Your task to perform on an android device: change your default location settings in chrome Image 0: 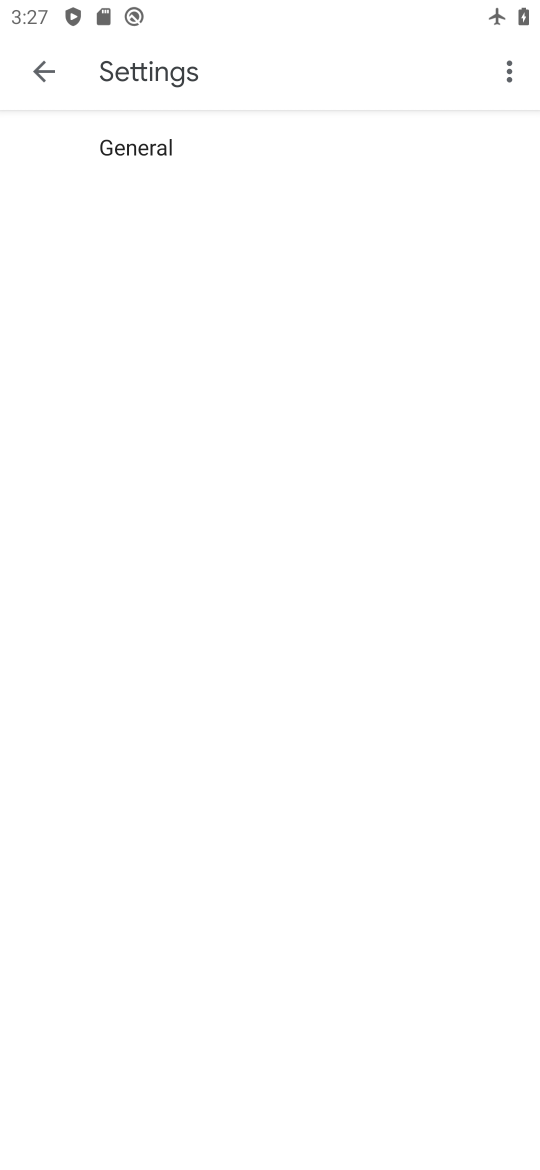
Step 0: press home button
Your task to perform on an android device: change your default location settings in chrome Image 1: 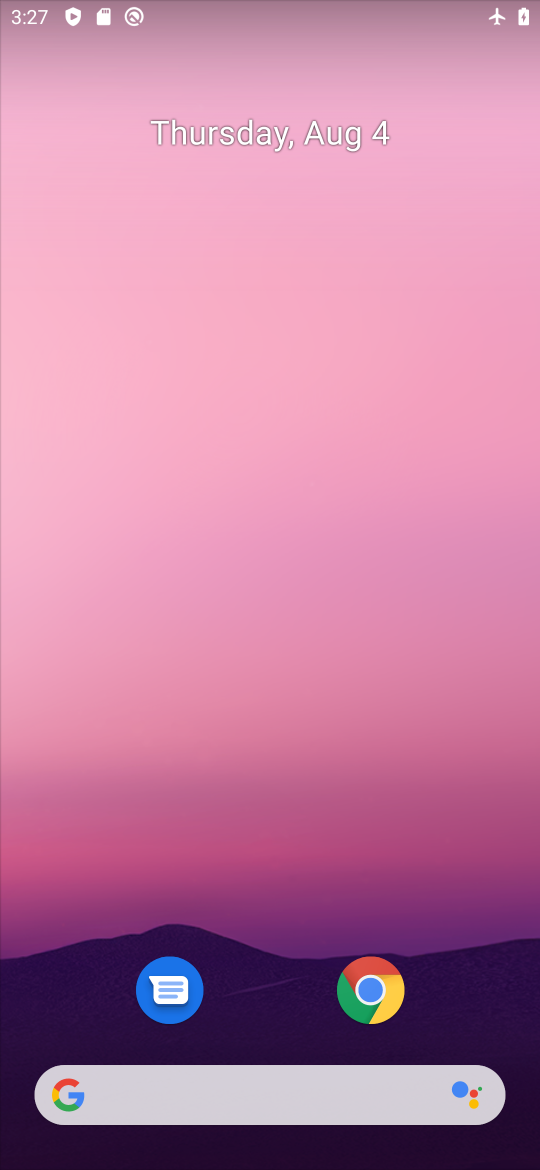
Step 1: click (369, 1000)
Your task to perform on an android device: change your default location settings in chrome Image 2: 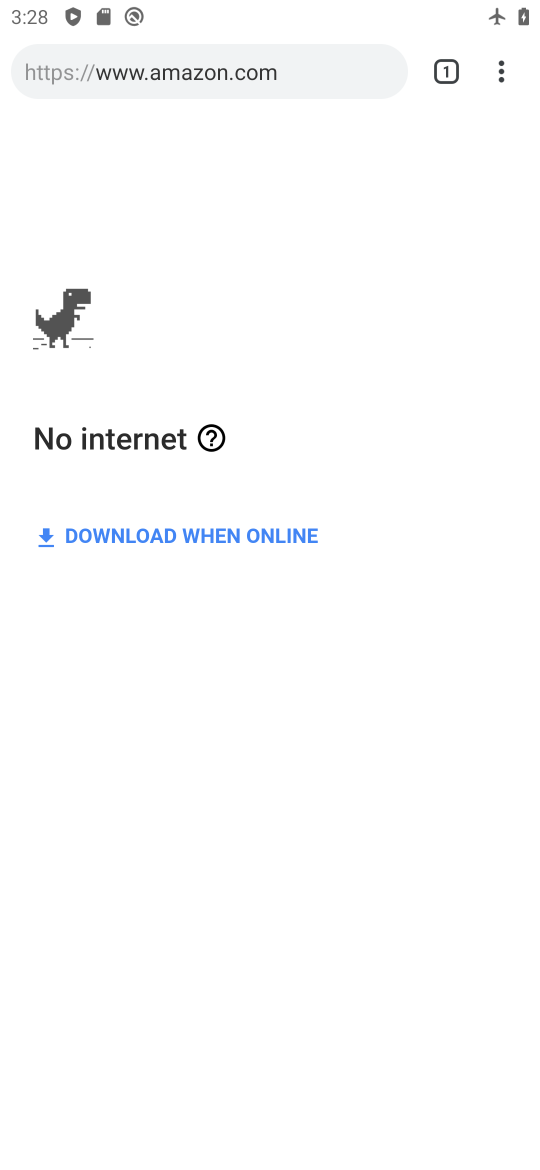
Step 2: click (502, 70)
Your task to perform on an android device: change your default location settings in chrome Image 3: 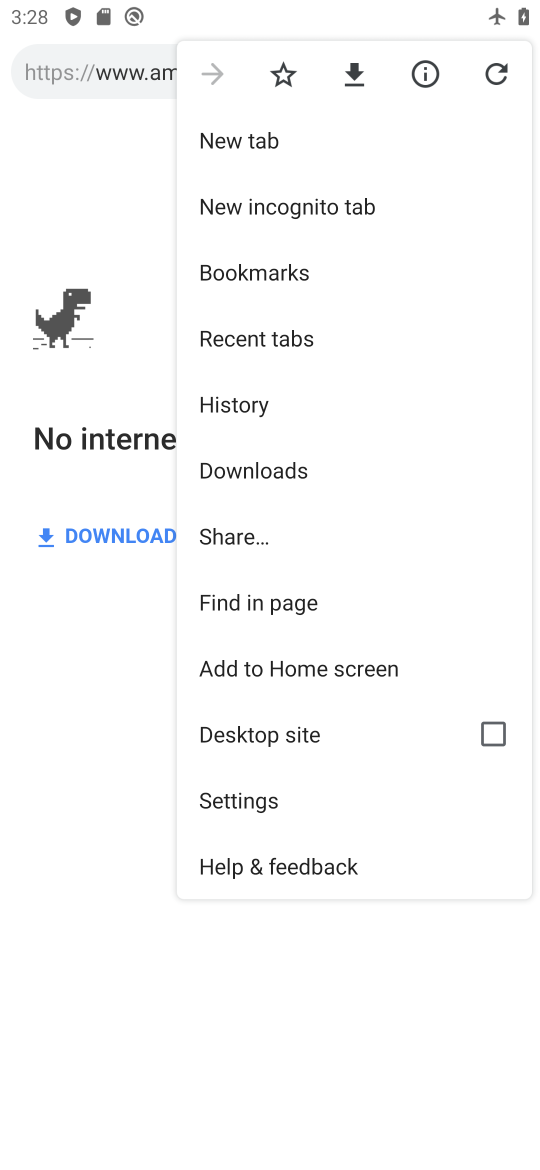
Step 3: click (309, 785)
Your task to perform on an android device: change your default location settings in chrome Image 4: 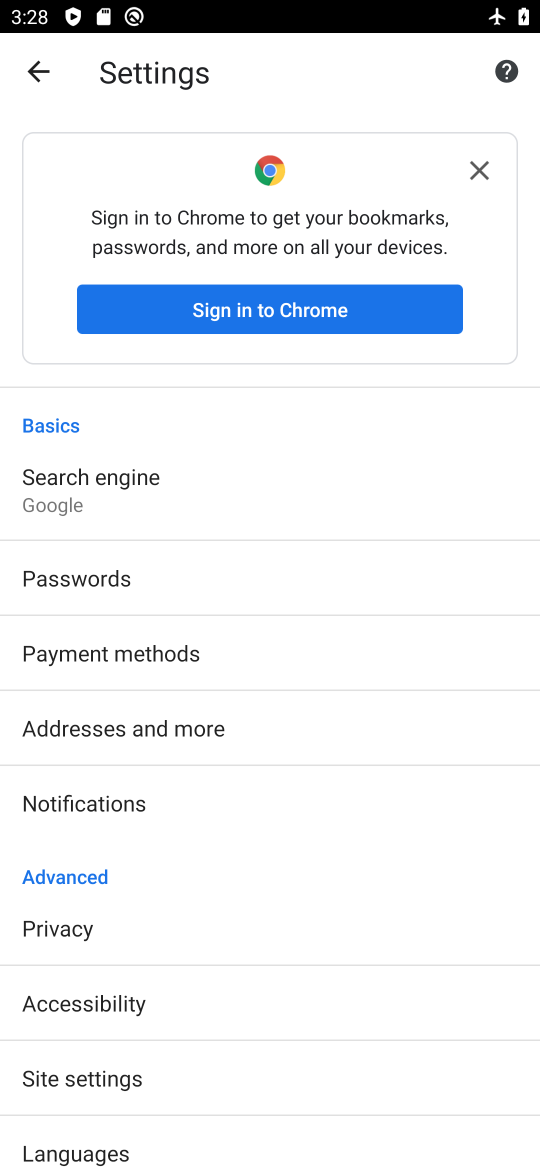
Step 4: task complete